Your task to perform on an android device: Open privacy settings Image 0: 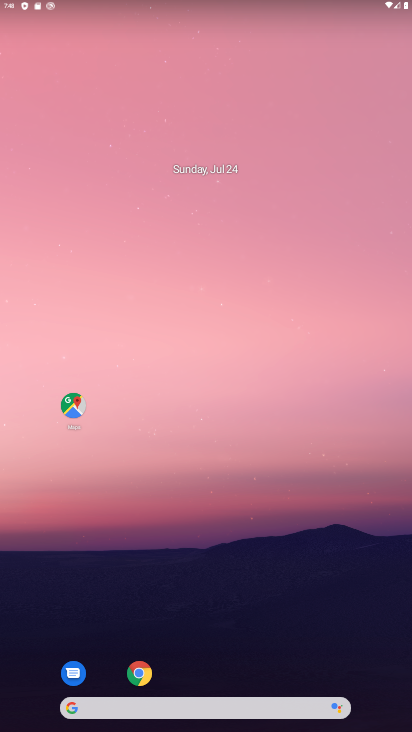
Step 0: drag from (157, 367) to (194, 17)
Your task to perform on an android device: Open privacy settings Image 1: 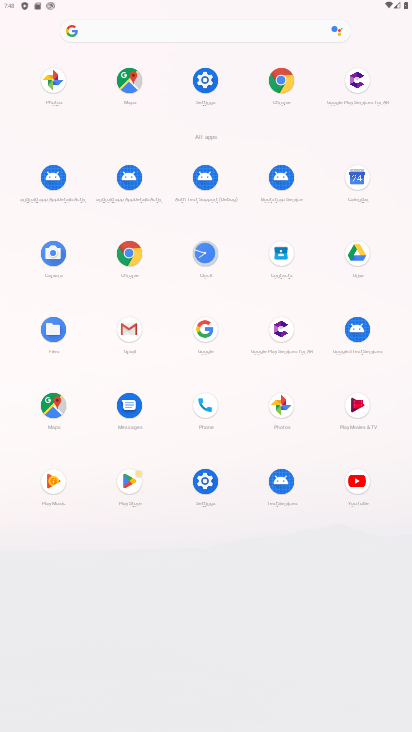
Step 1: click (205, 78)
Your task to perform on an android device: Open privacy settings Image 2: 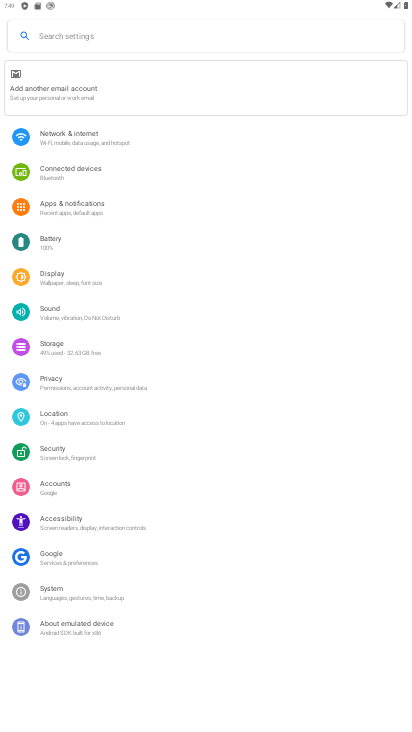
Step 2: click (55, 380)
Your task to perform on an android device: Open privacy settings Image 3: 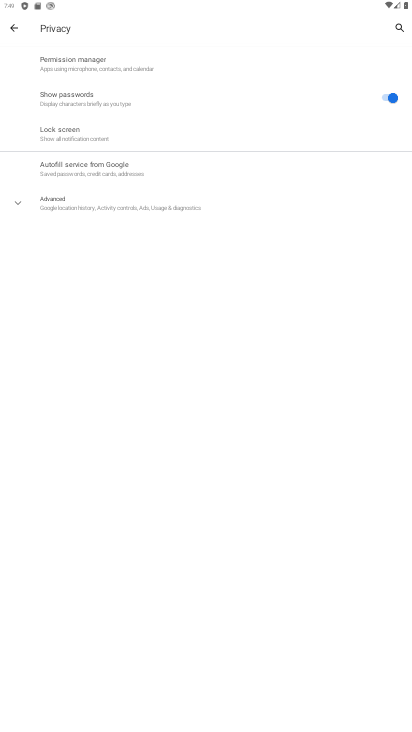
Step 3: task complete